Your task to perform on an android device: Open Amazon Image 0: 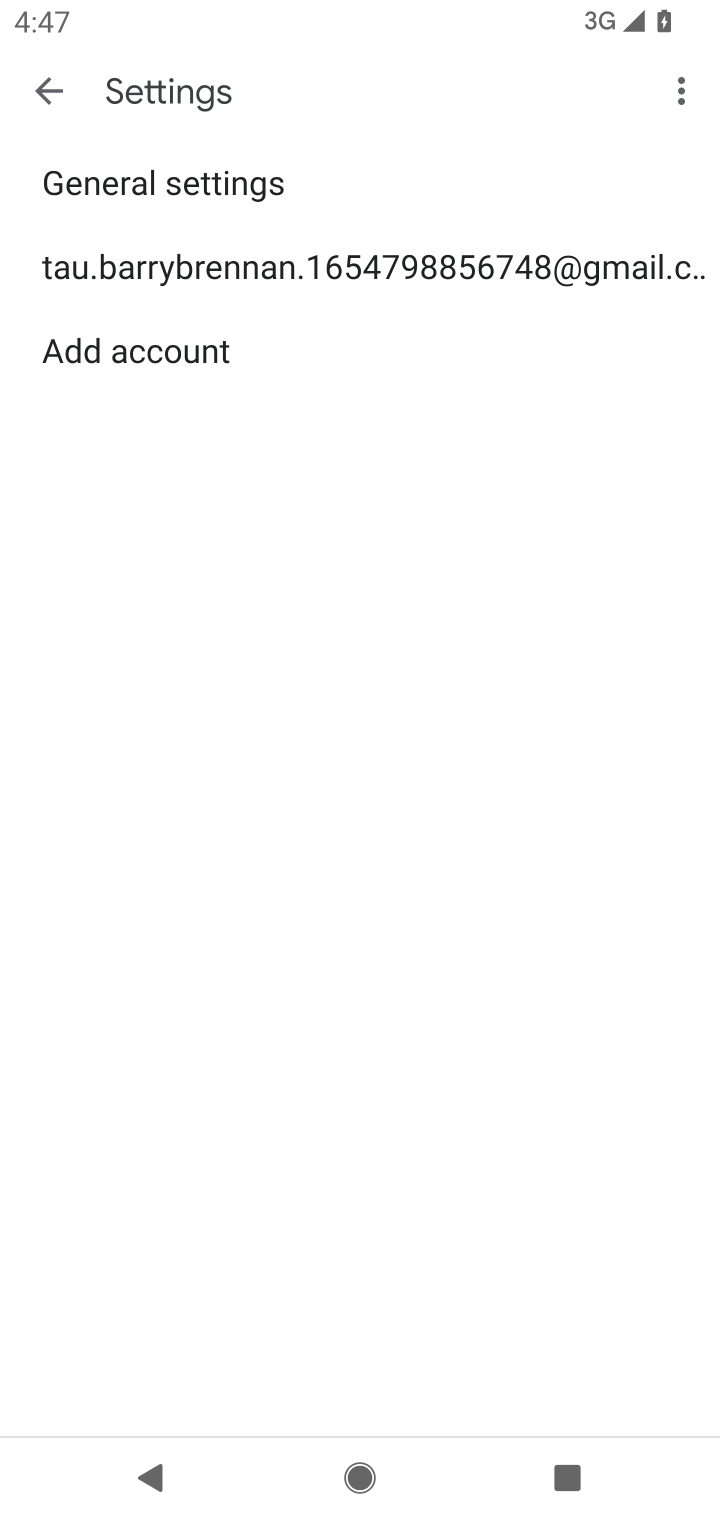
Step 0: press home button
Your task to perform on an android device: Open Amazon Image 1: 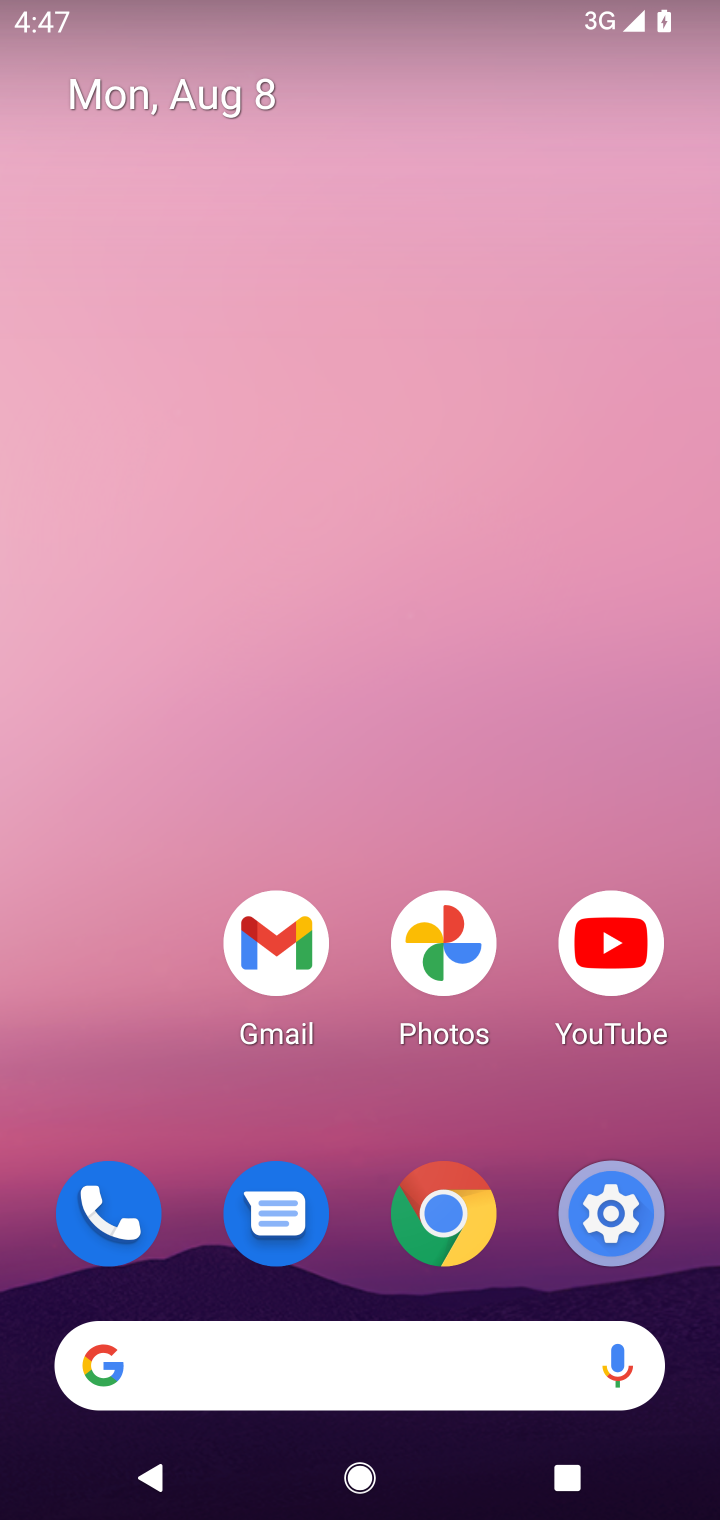
Step 1: click (460, 1223)
Your task to perform on an android device: Open Amazon Image 2: 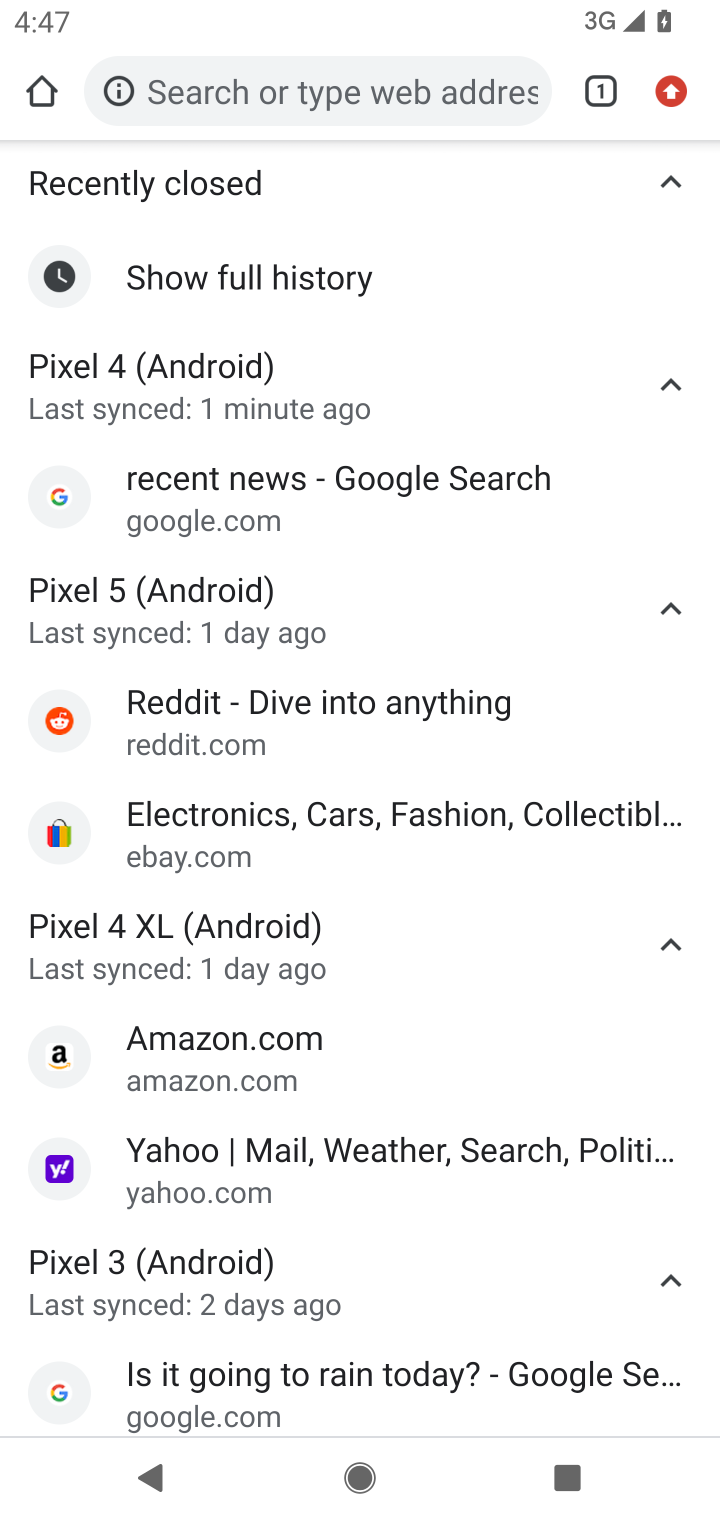
Step 2: click (257, 92)
Your task to perform on an android device: Open Amazon Image 3: 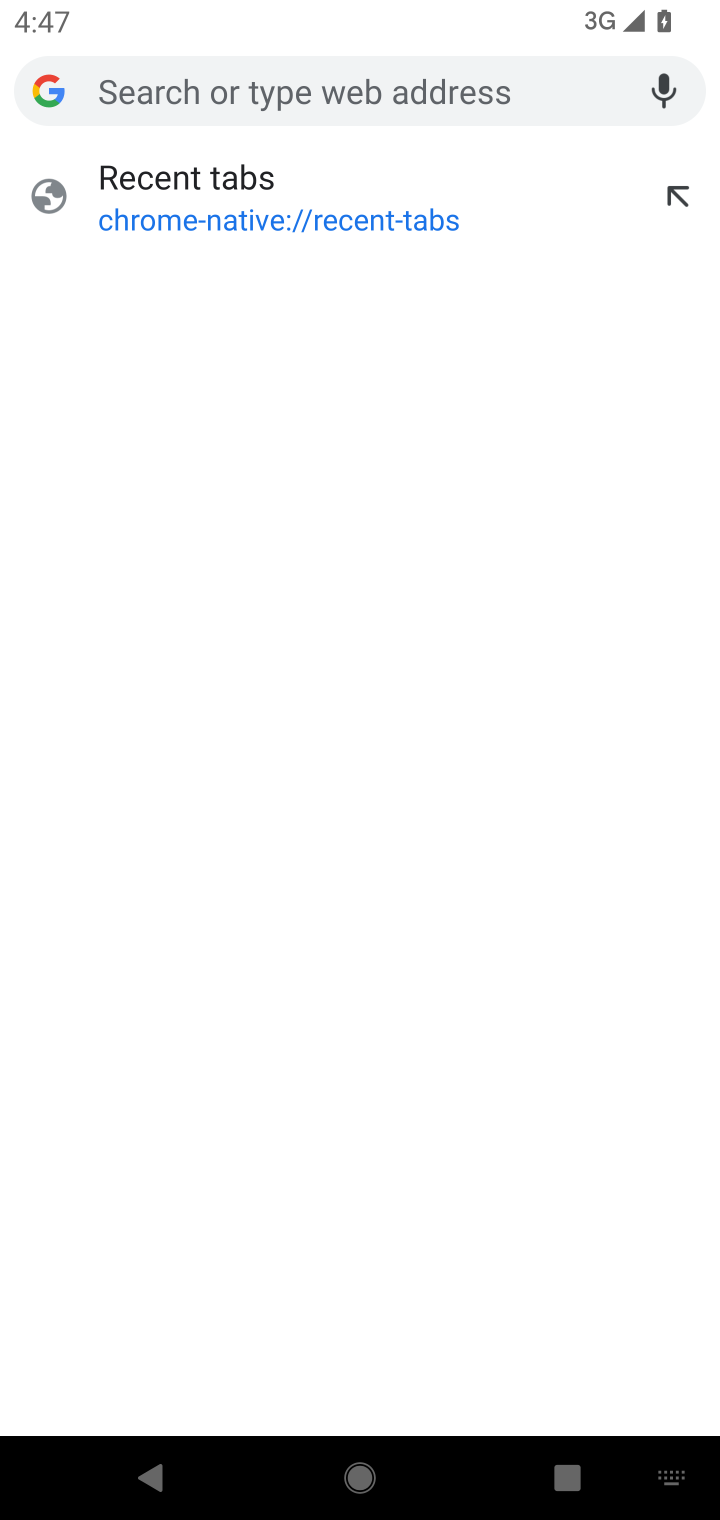
Step 3: type "amazon"
Your task to perform on an android device: Open Amazon Image 4: 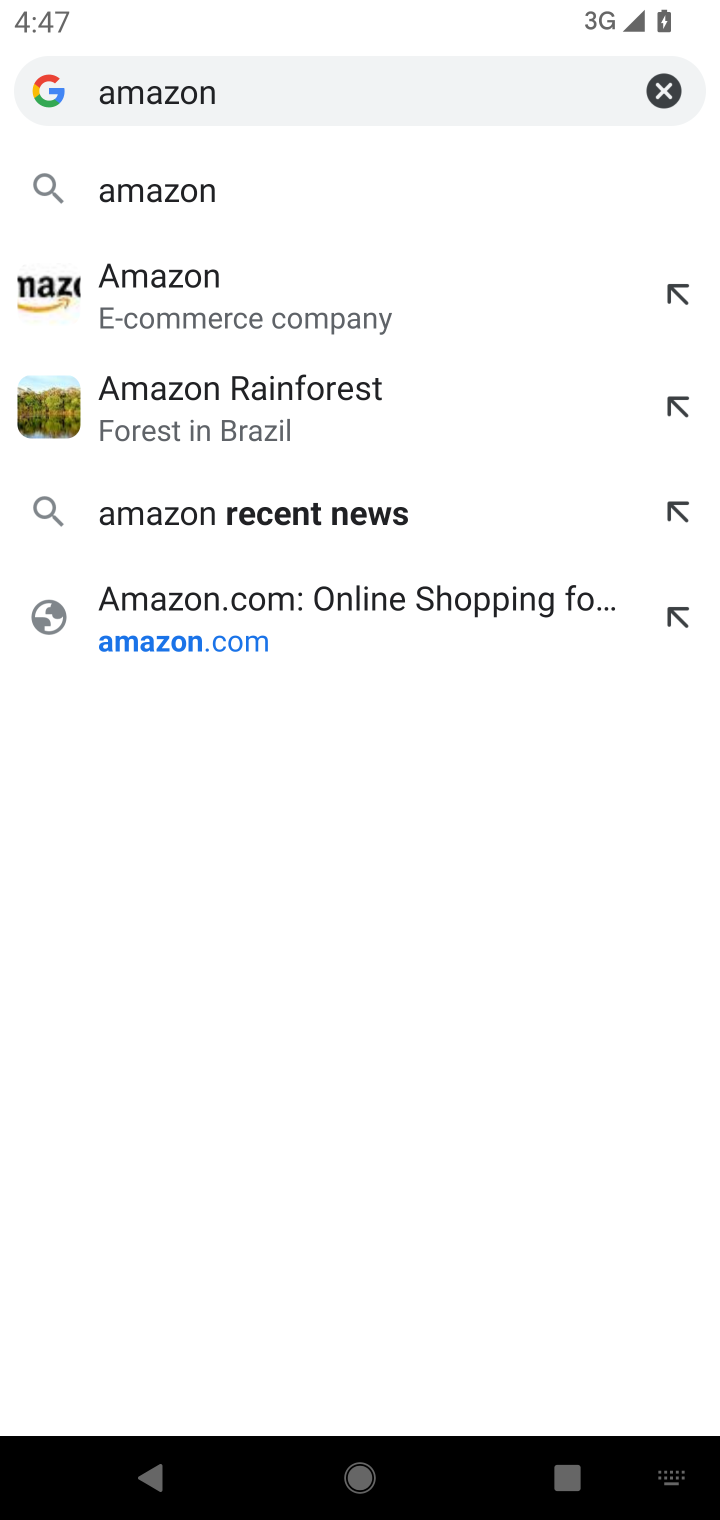
Step 4: click (223, 272)
Your task to perform on an android device: Open Amazon Image 5: 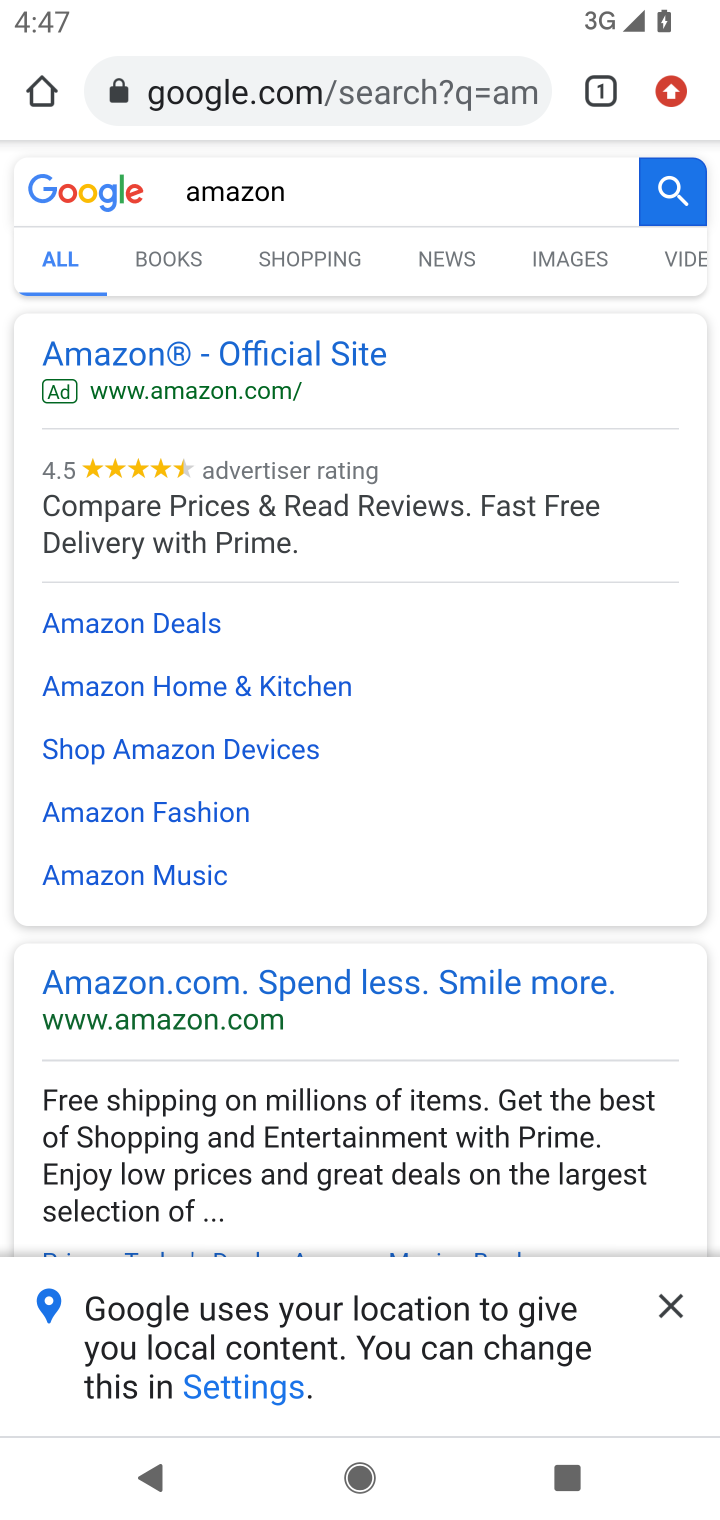
Step 5: click (272, 978)
Your task to perform on an android device: Open Amazon Image 6: 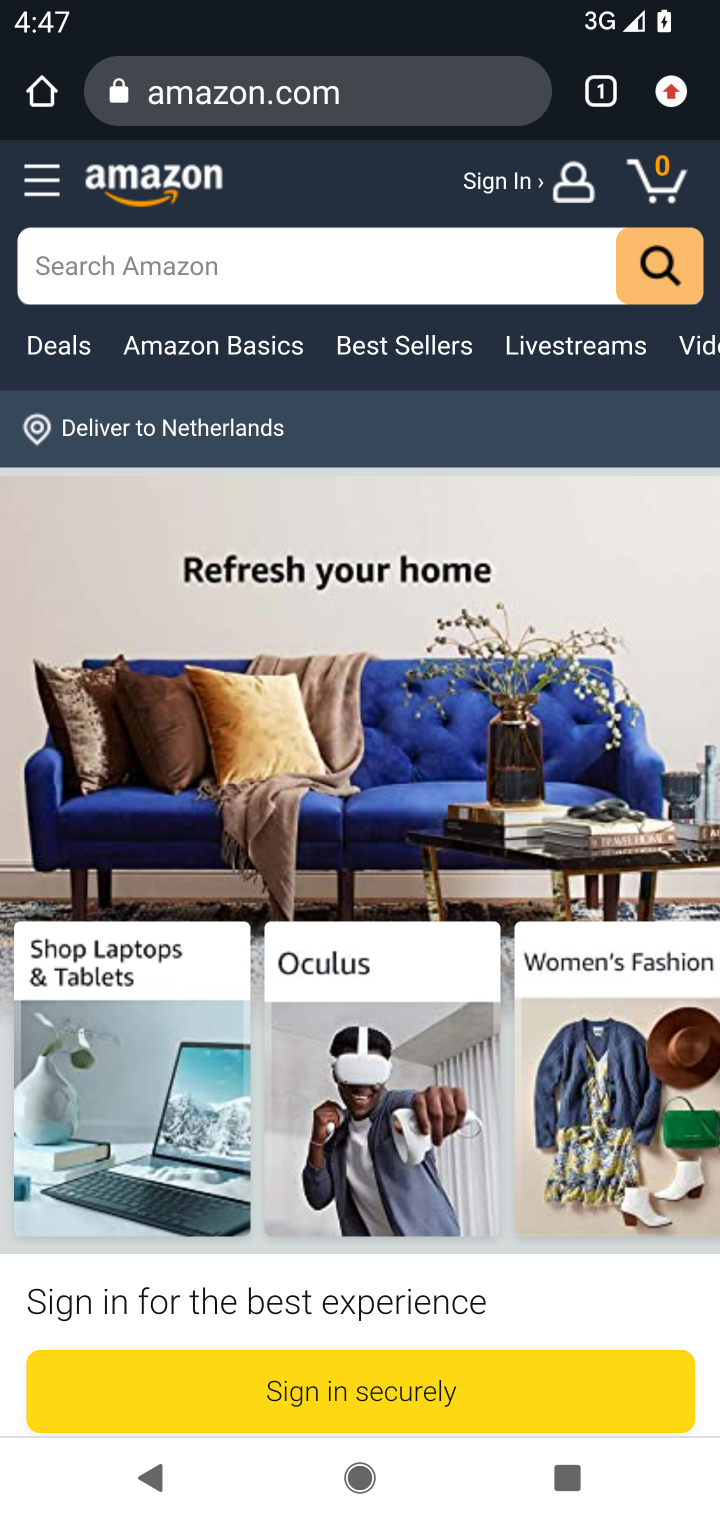
Step 6: task complete